Your task to perform on an android device: open wifi settings Image 0: 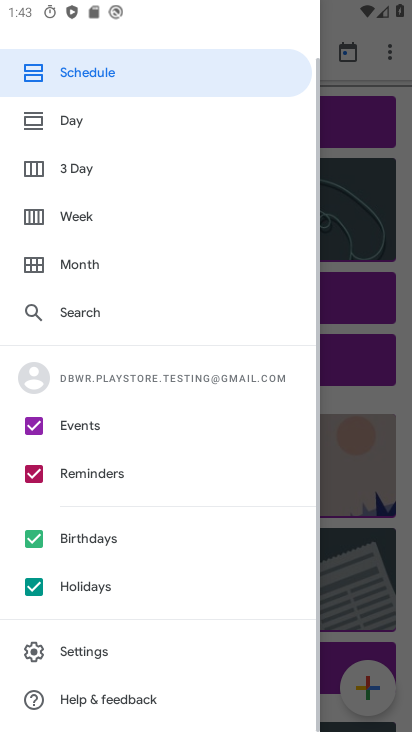
Step 0: drag from (218, 644) to (253, 67)
Your task to perform on an android device: open wifi settings Image 1: 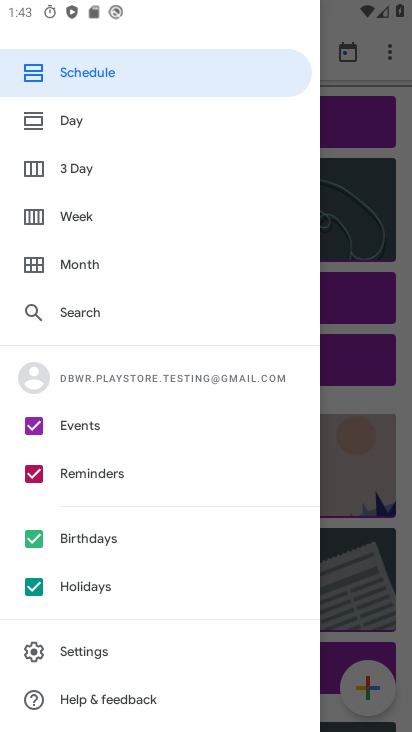
Step 1: drag from (163, 604) to (165, 137)
Your task to perform on an android device: open wifi settings Image 2: 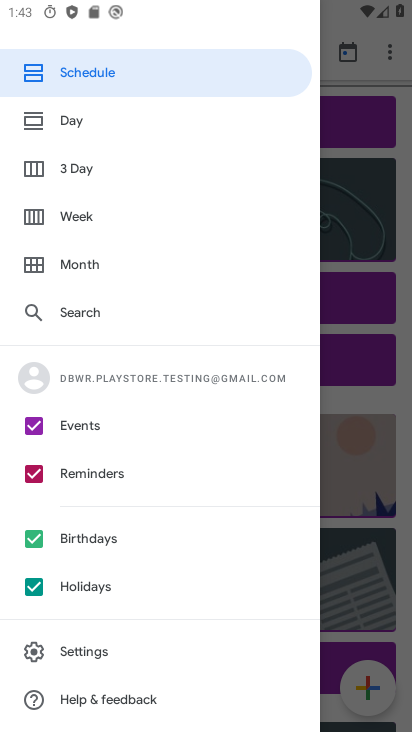
Step 2: drag from (100, 614) to (118, 162)
Your task to perform on an android device: open wifi settings Image 3: 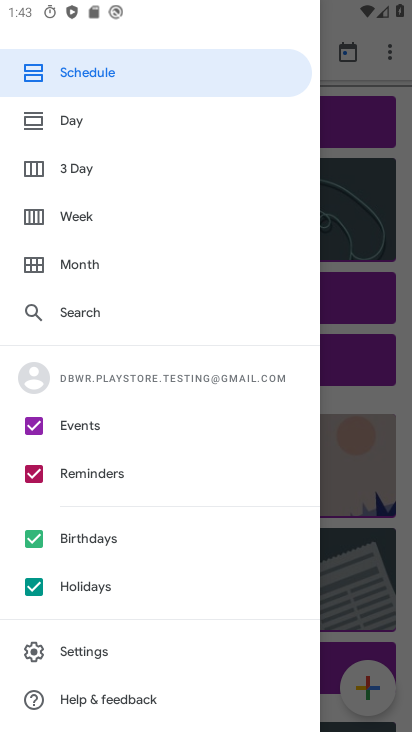
Step 3: press home button
Your task to perform on an android device: open wifi settings Image 4: 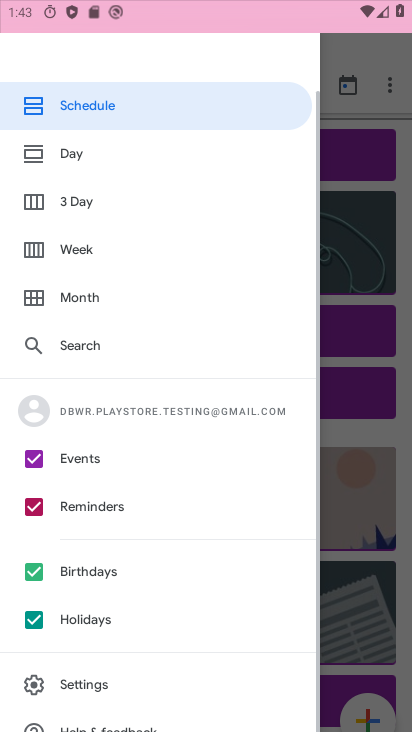
Step 4: drag from (208, 718) to (240, 37)
Your task to perform on an android device: open wifi settings Image 5: 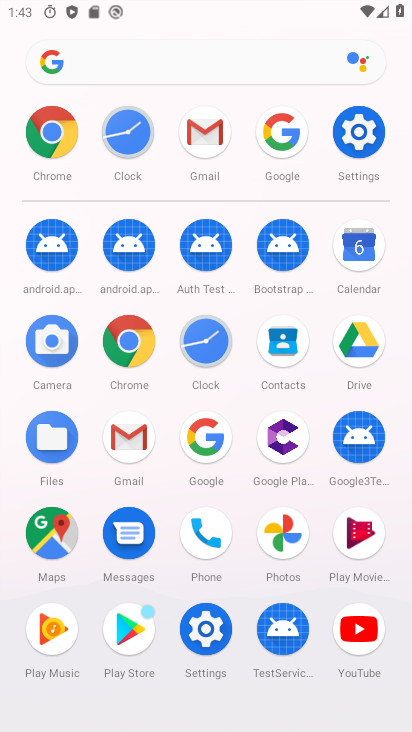
Step 5: click (354, 135)
Your task to perform on an android device: open wifi settings Image 6: 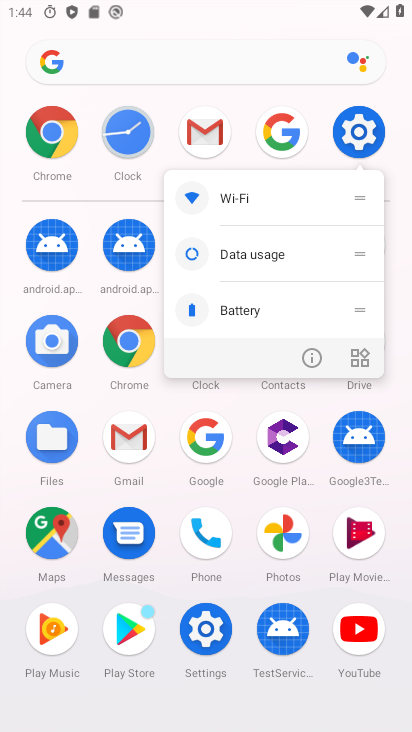
Step 6: click (268, 205)
Your task to perform on an android device: open wifi settings Image 7: 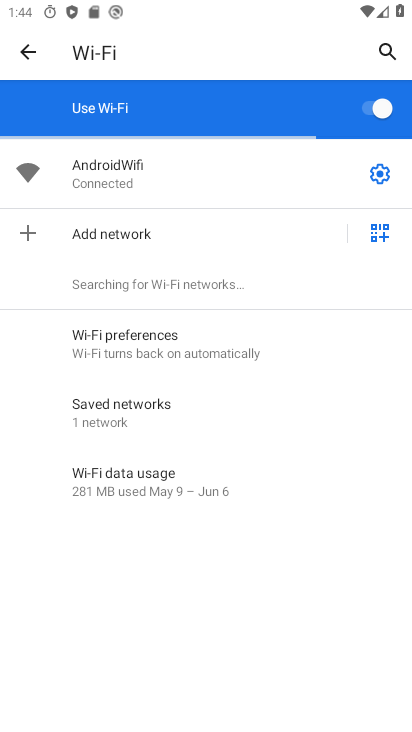
Step 7: click (368, 175)
Your task to perform on an android device: open wifi settings Image 8: 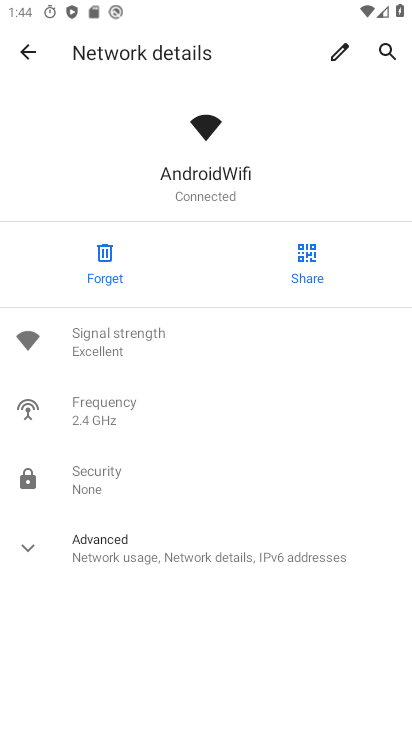
Step 8: task complete